Your task to perform on an android device: See recent photos Image 0: 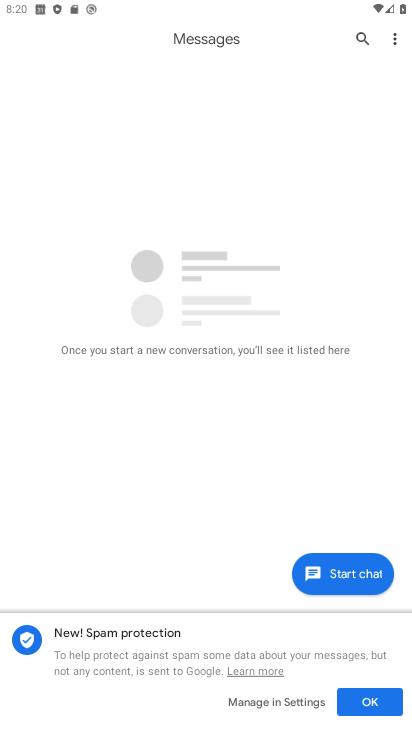
Step 0: drag from (226, 469) to (242, 154)
Your task to perform on an android device: See recent photos Image 1: 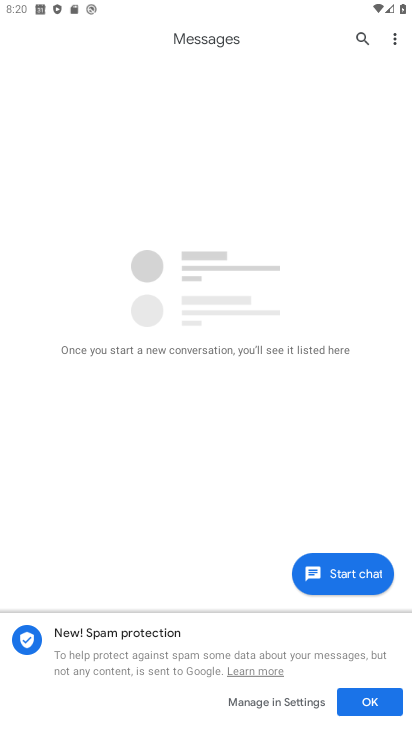
Step 1: drag from (200, 469) to (200, 90)
Your task to perform on an android device: See recent photos Image 2: 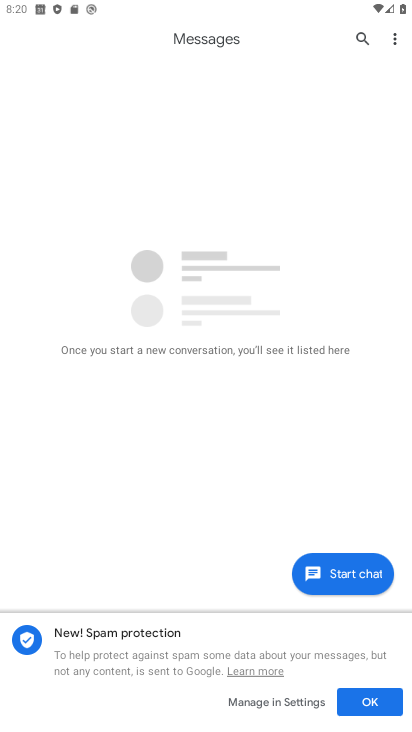
Step 2: press home button
Your task to perform on an android device: See recent photos Image 3: 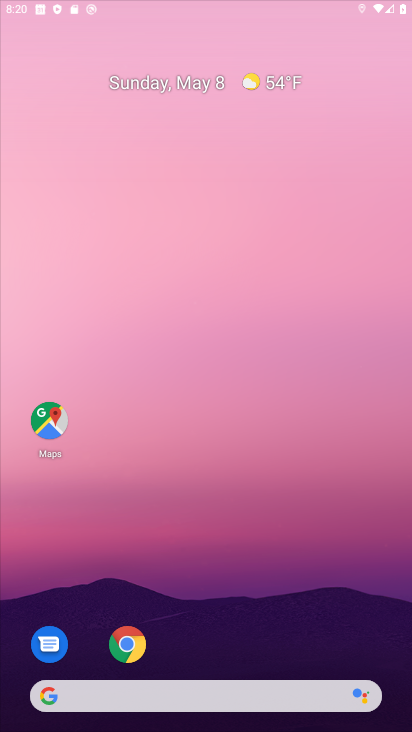
Step 3: drag from (192, 608) to (240, 251)
Your task to perform on an android device: See recent photos Image 4: 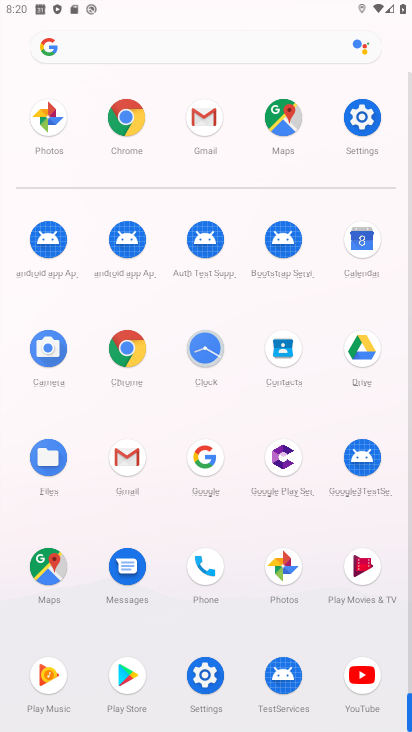
Step 4: click (286, 581)
Your task to perform on an android device: See recent photos Image 5: 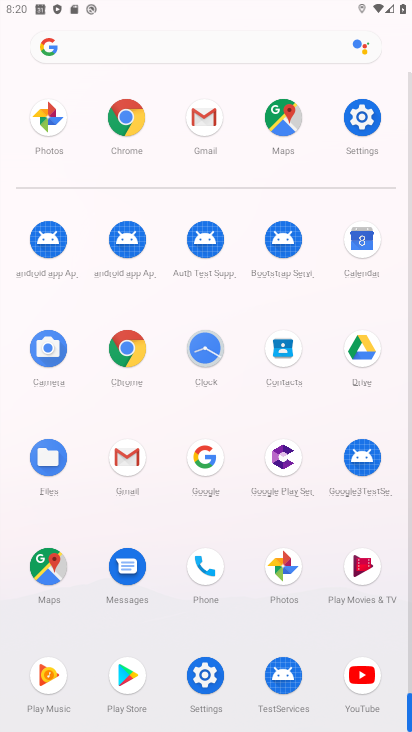
Step 5: click (286, 581)
Your task to perform on an android device: See recent photos Image 6: 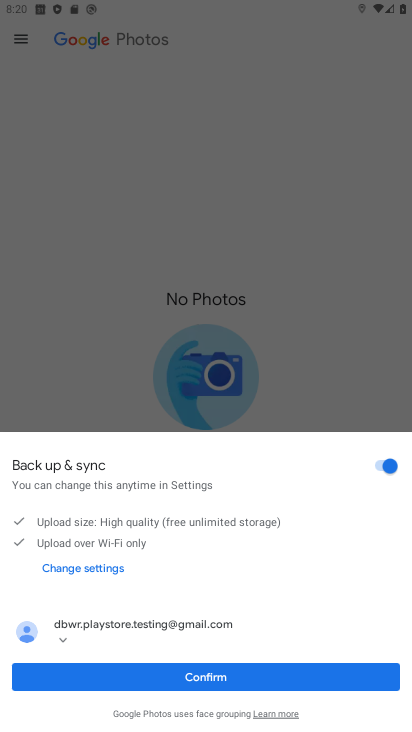
Step 6: click (227, 679)
Your task to perform on an android device: See recent photos Image 7: 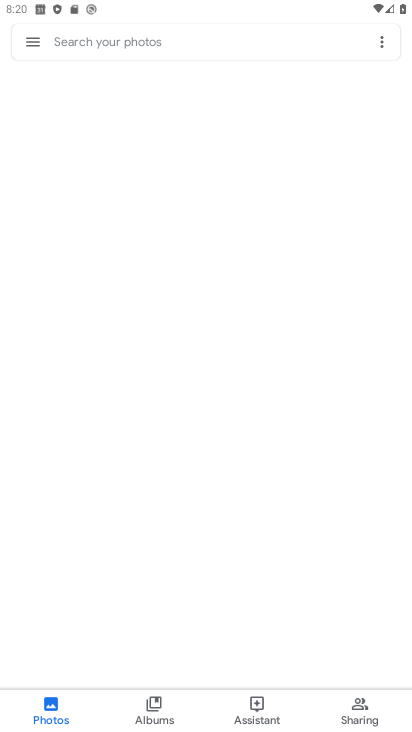
Step 7: drag from (254, 558) to (265, 431)
Your task to perform on an android device: See recent photos Image 8: 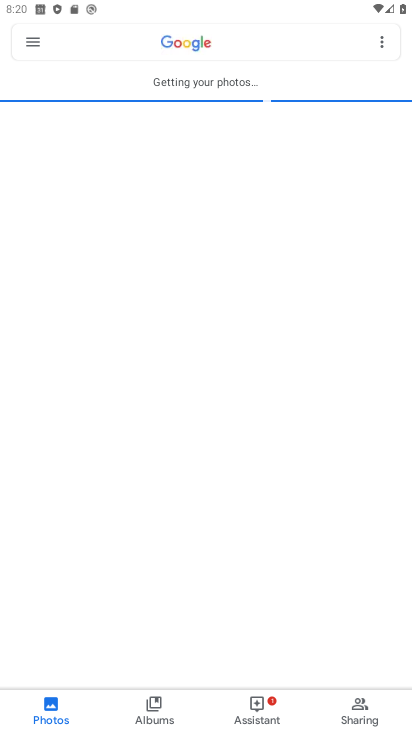
Step 8: drag from (193, 619) to (210, 266)
Your task to perform on an android device: See recent photos Image 9: 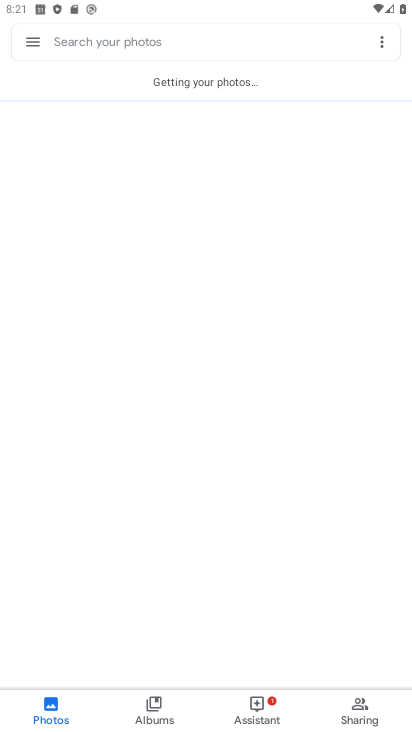
Step 9: click (159, 715)
Your task to perform on an android device: See recent photos Image 10: 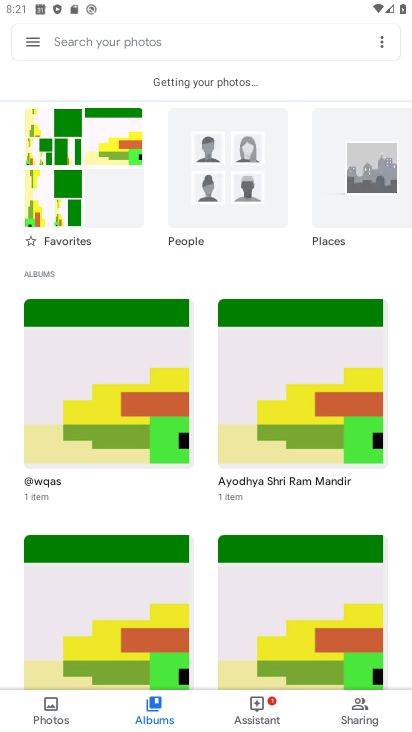
Step 10: click (96, 175)
Your task to perform on an android device: See recent photos Image 11: 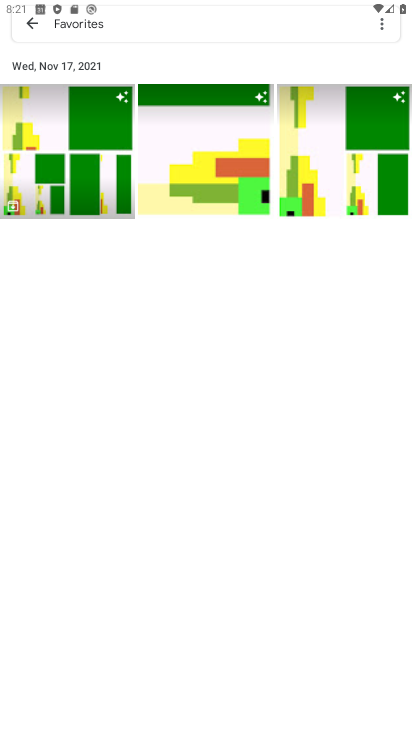
Step 11: click (214, 180)
Your task to perform on an android device: See recent photos Image 12: 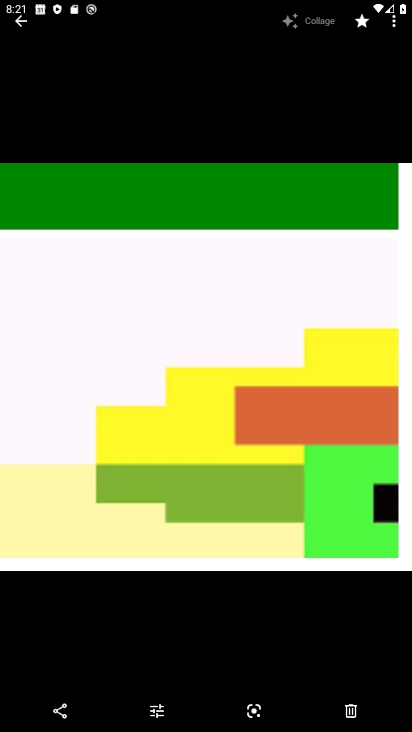
Step 12: drag from (354, 339) to (17, 411)
Your task to perform on an android device: See recent photos Image 13: 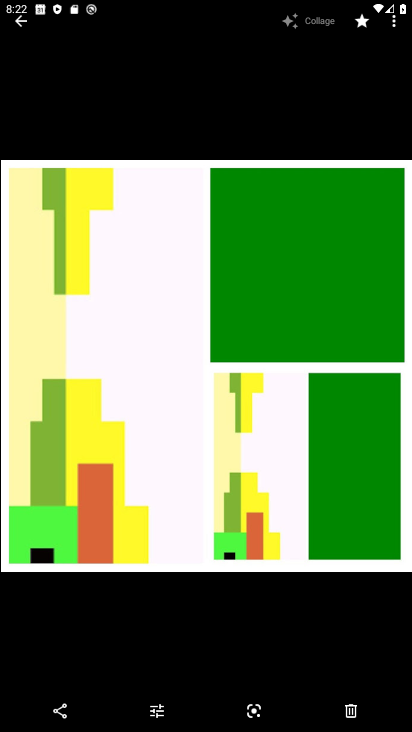
Step 13: drag from (358, 472) to (156, 720)
Your task to perform on an android device: See recent photos Image 14: 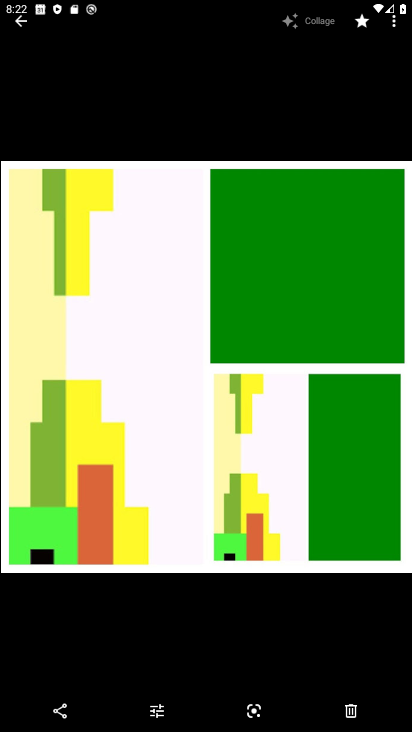
Step 14: drag from (291, 462) to (41, 355)
Your task to perform on an android device: See recent photos Image 15: 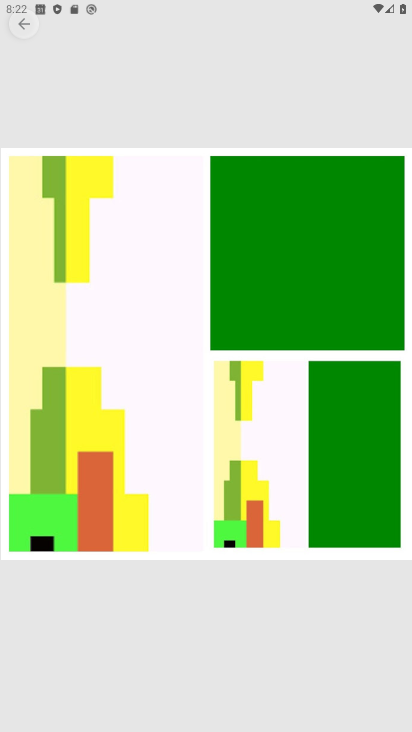
Step 15: drag from (303, 397) to (35, 472)
Your task to perform on an android device: See recent photos Image 16: 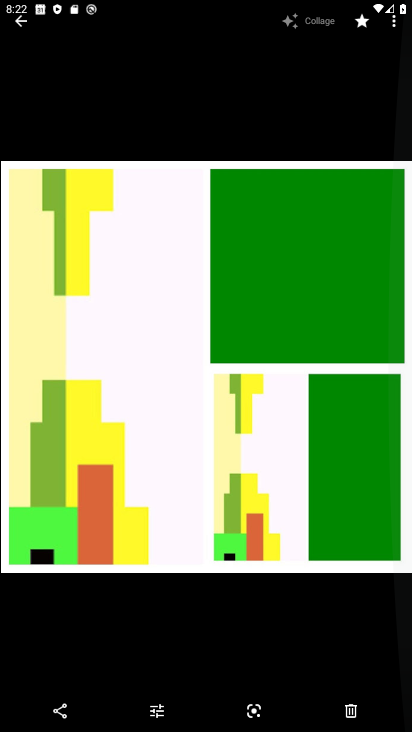
Step 16: drag from (350, 466) to (13, 455)
Your task to perform on an android device: See recent photos Image 17: 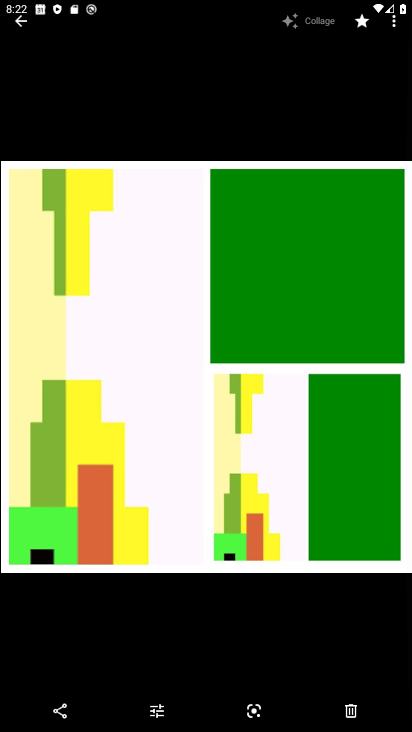
Step 17: click (93, 93)
Your task to perform on an android device: See recent photos Image 18: 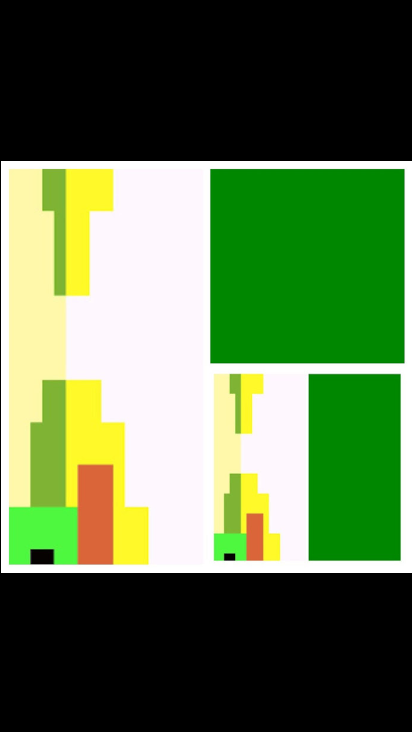
Step 18: click (45, 129)
Your task to perform on an android device: See recent photos Image 19: 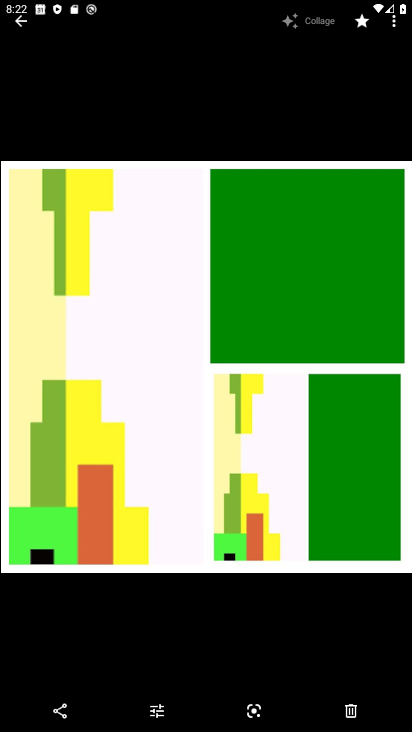
Step 19: click (56, 116)
Your task to perform on an android device: See recent photos Image 20: 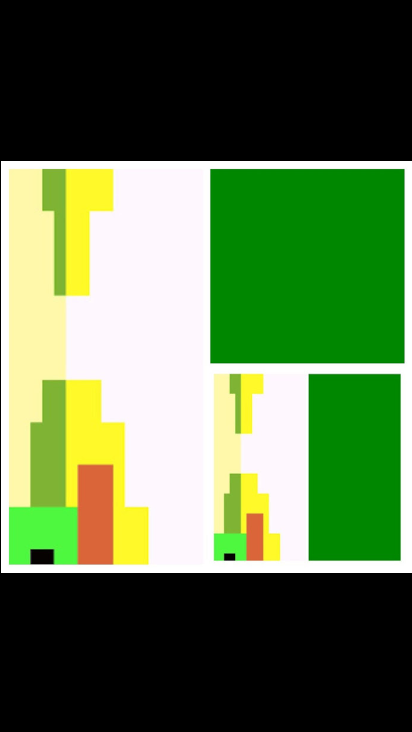
Step 20: click (243, 348)
Your task to perform on an android device: See recent photos Image 21: 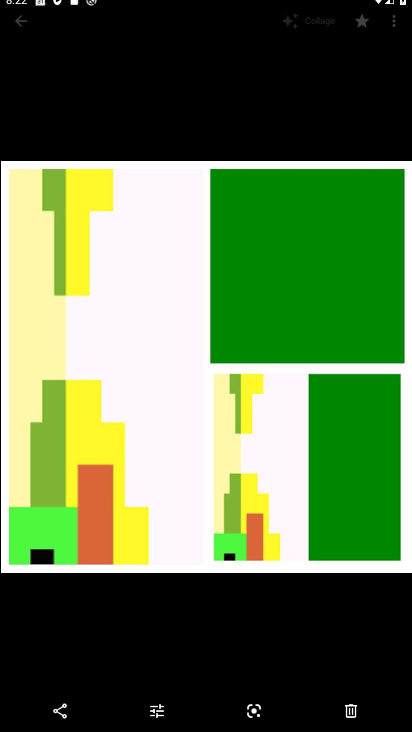
Step 21: drag from (329, 440) to (17, 500)
Your task to perform on an android device: See recent photos Image 22: 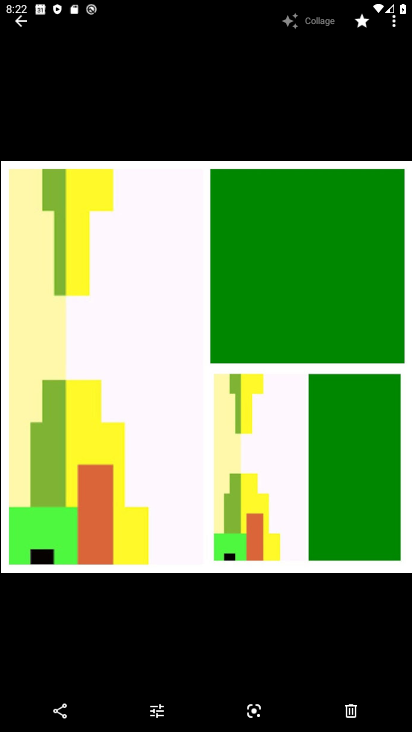
Step 22: drag from (291, 402) to (15, 472)
Your task to perform on an android device: See recent photos Image 23: 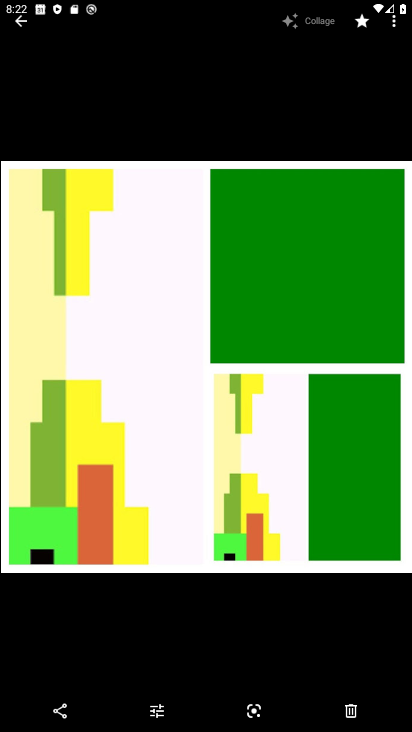
Step 23: press back button
Your task to perform on an android device: See recent photos Image 24: 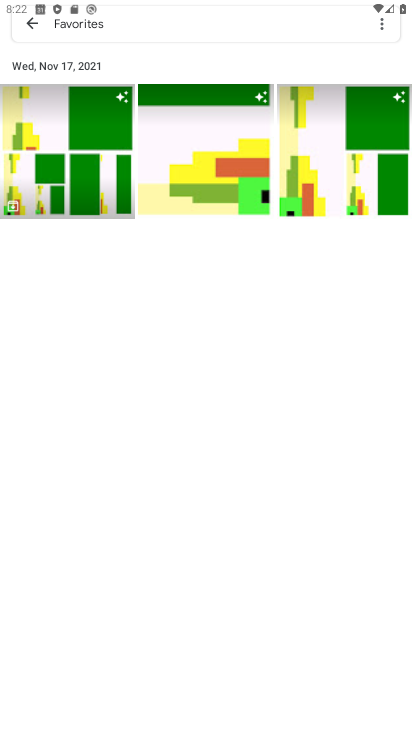
Step 24: click (238, 160)
Your task to perform on an android device: See recent photos Image 25: 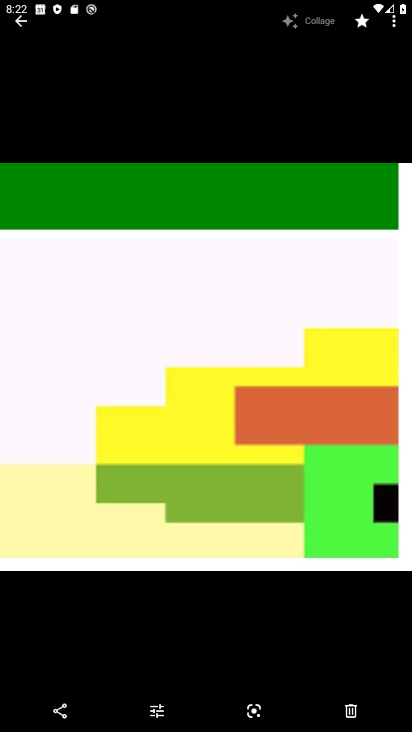
Step 25: task complete